Your task to perform on an android device: change your default location settings in chrome Image 0: 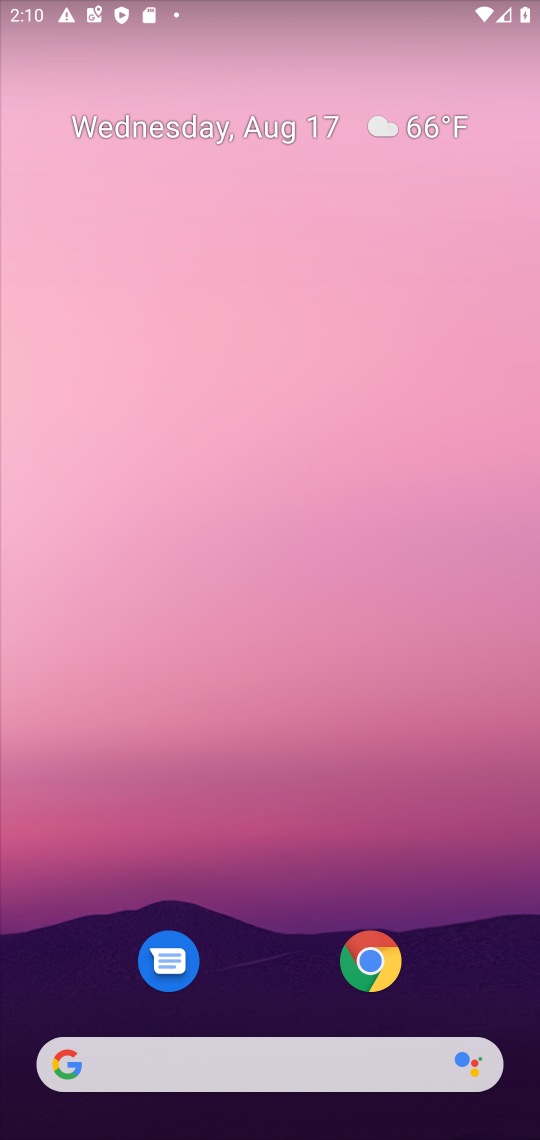
Step 0: drag from (271, 1069) to (380, 82)
Your task to perform on an android device: change your default location settings in chrome Image 1: 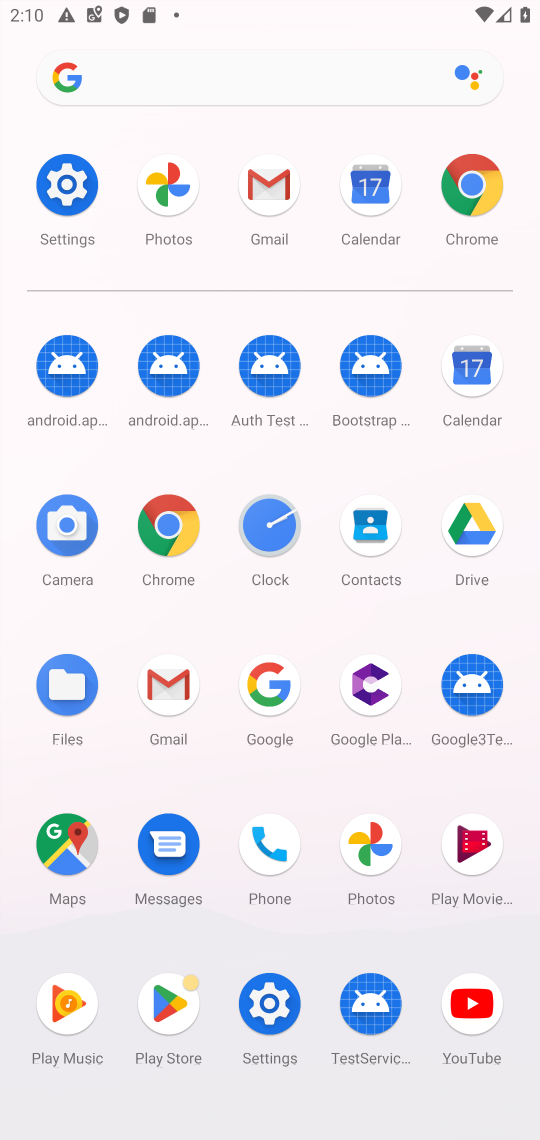
Step 1: click (464, 300)
Your task to perform on an android device: change your default location settings in chrome Image 2: 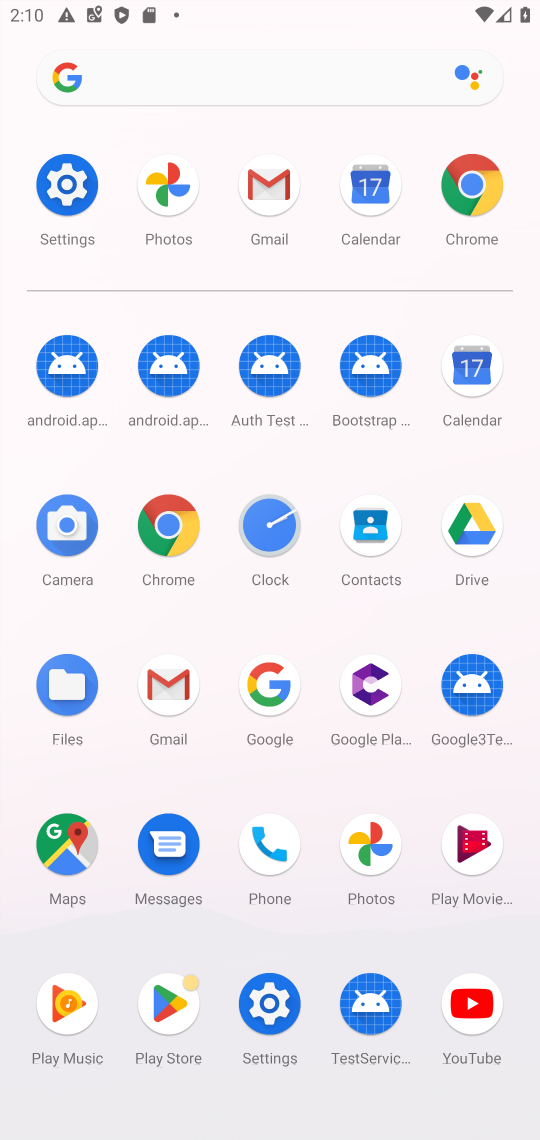
Step 2: click (475, 219)
Your task to perform on an android device: change your default location settings in chrome Image 3: 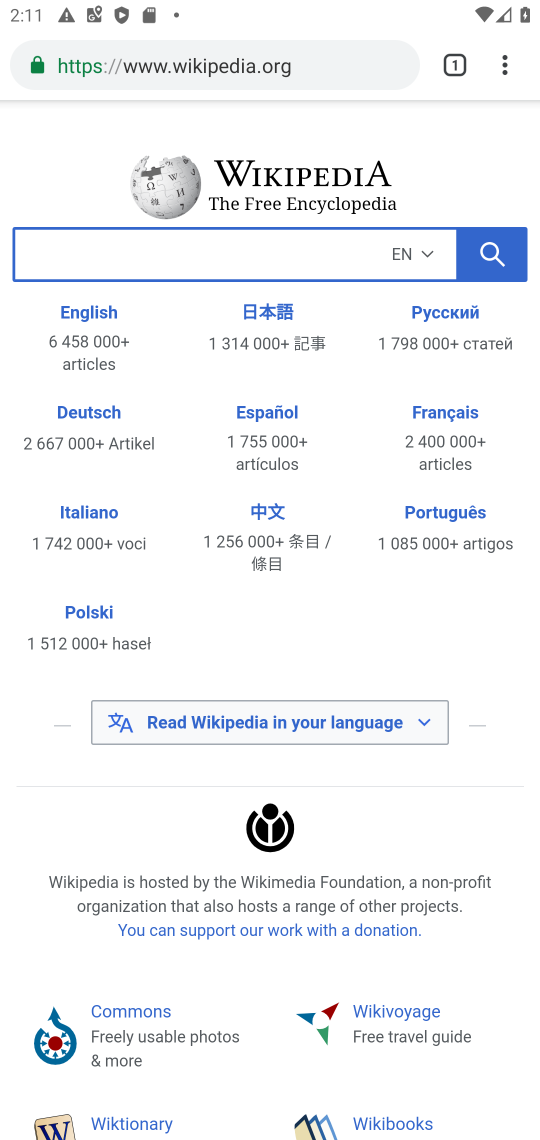
Step 3: click (510, 67)
Your task to perform on an android device: change your default location settings in chrome Image 4: 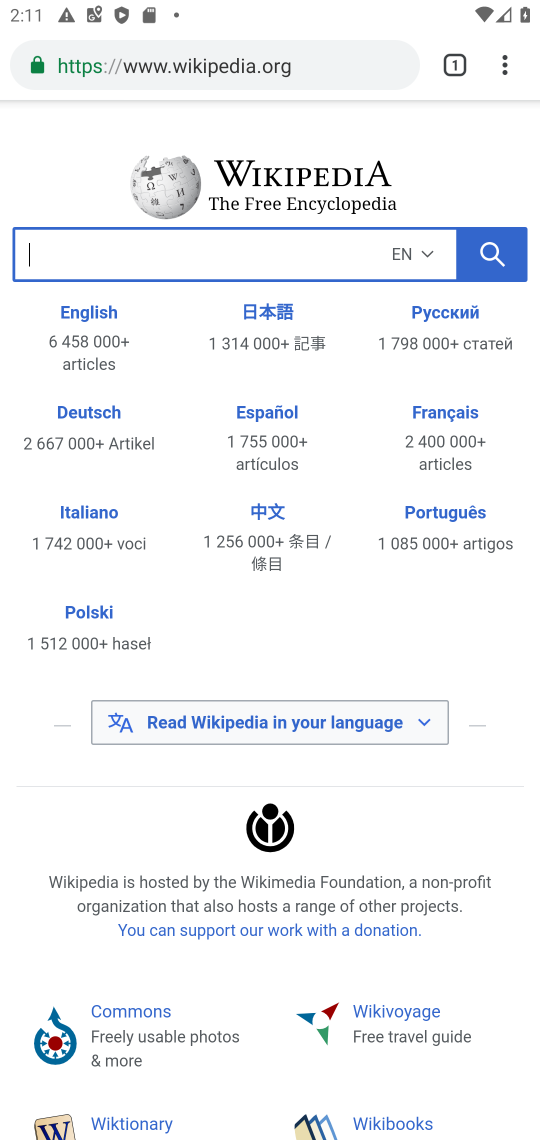
Step 4: click (507, 69)
Your task to perform on an android device: change your default location settings in chrome Image 5: 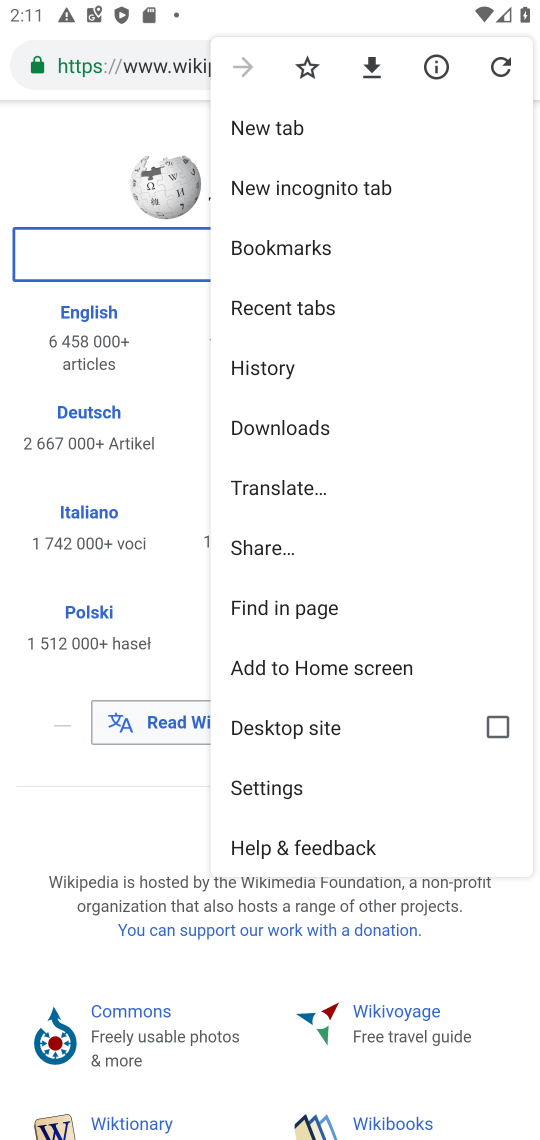
Step 5: click (297, 797)
Your task to perform on an android device: change your default location settings in chrome Image 6: 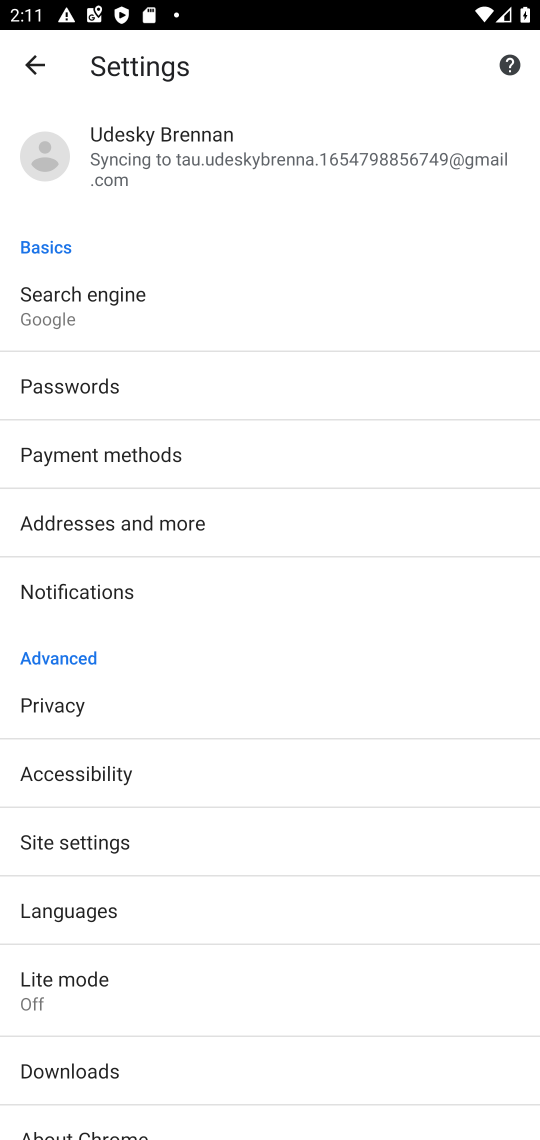
Step 6: click (156, 849)
Your task to perform on an android device: change your default location settings in chrome Image 7: 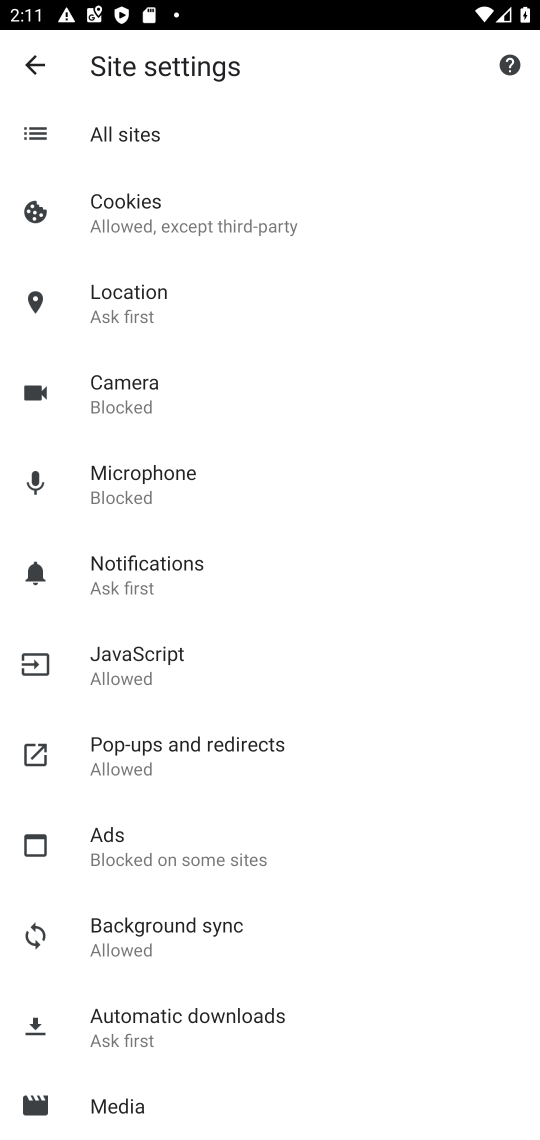
Step 7: click (175, 305)
Your task to perform on an android device: change your default location settings in chrome Image 8: 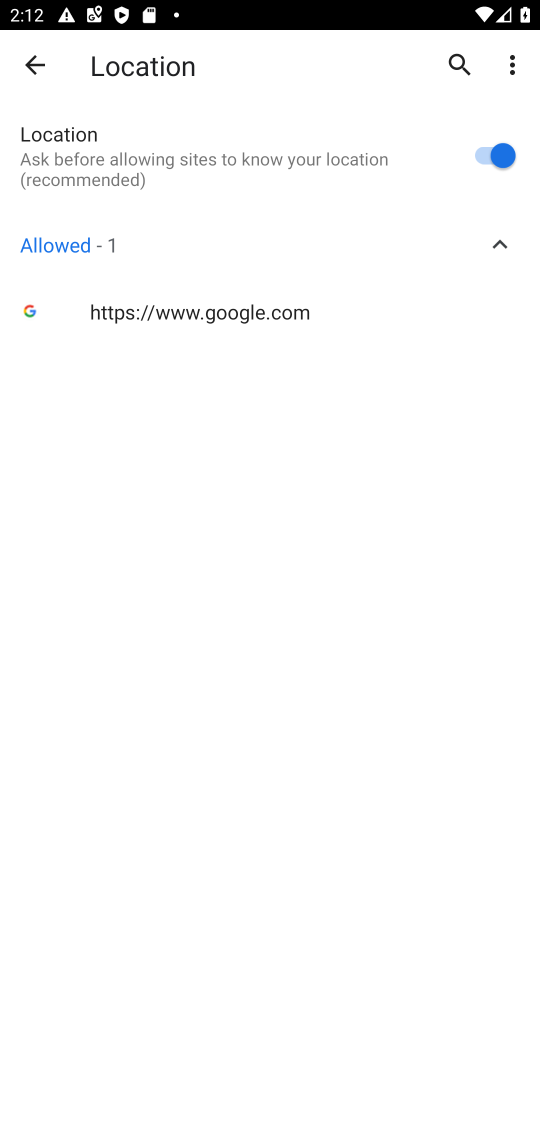
Step 8: click (487, 153)
Your task to perform on an android device: change your default location settings in chrome Image 9: 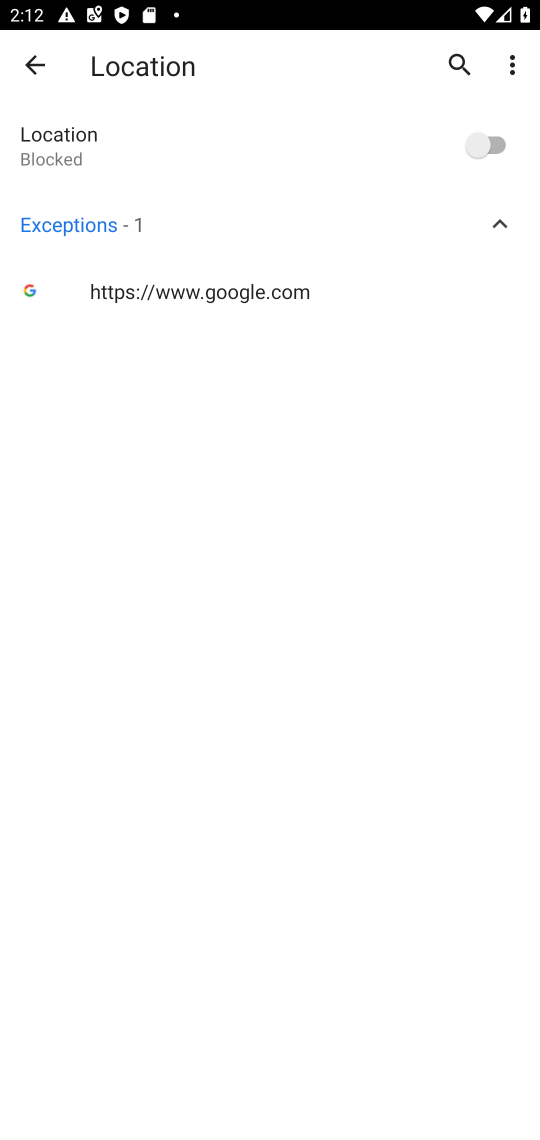
Step 9: task complete